Your task to perform on an android device: change the clock display to digital Image 0: 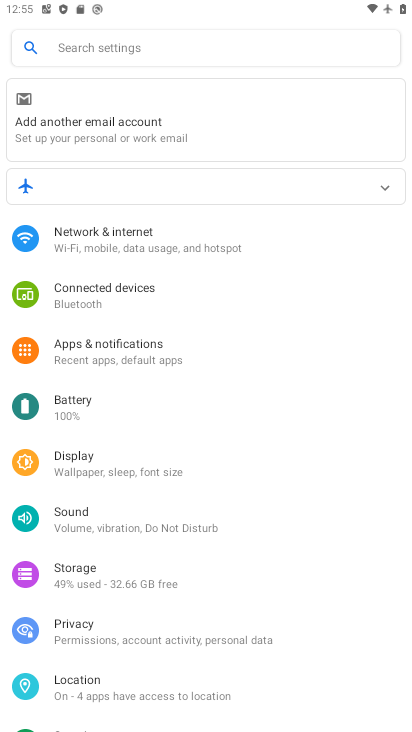
Step 0: press home button
Your task to perform on an android device: change the clock display to digital Image 1: 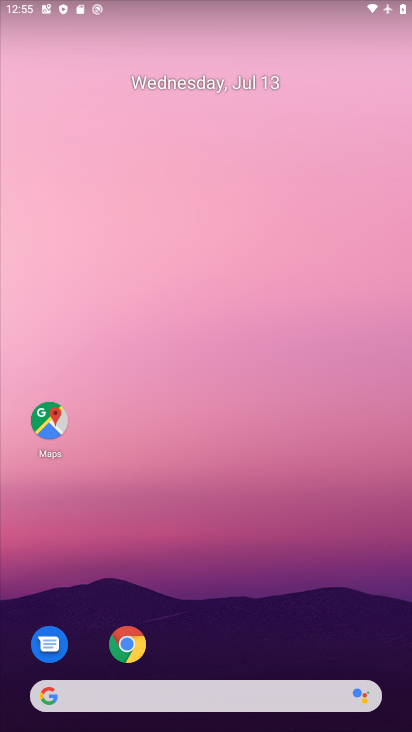
Step 1: drag from (263, 613) to (277, 98)
Your task to perform on an android device: change the clock display to digital Image 2: 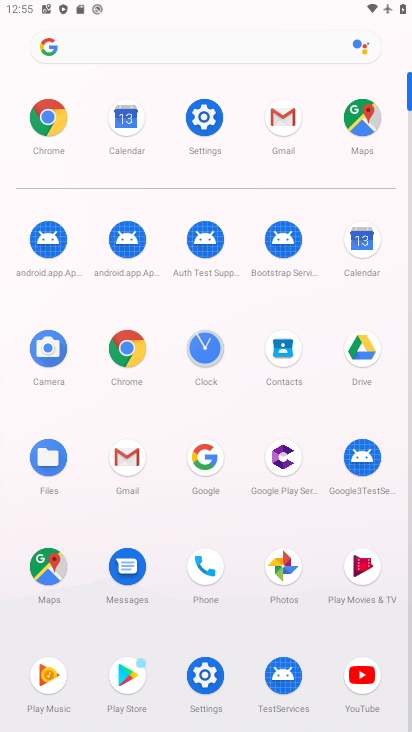
Step 2: click (205, 348)
Your task to perform on an android device: change the clock display to digital Image 3: 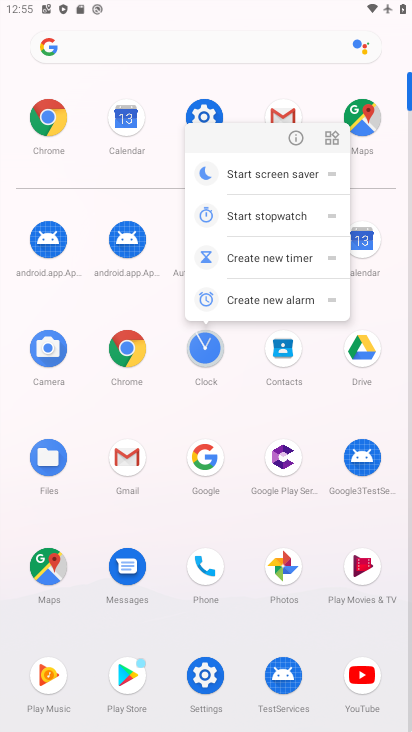
Step 3: click (204, 347)
Your task to perform on an android device: change the clock display to digital Image 4: 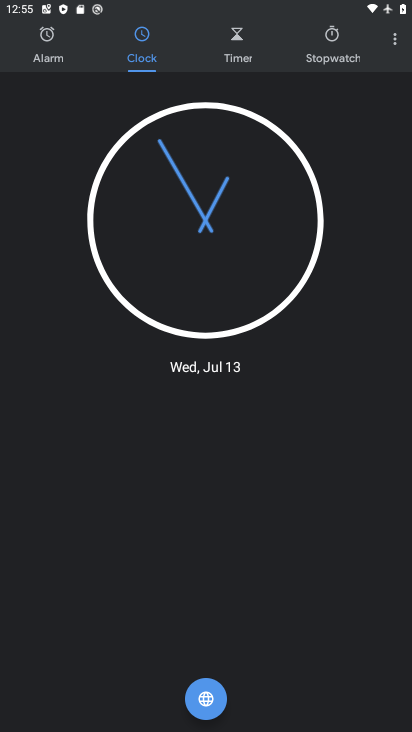
Step 4: click (403, 38)
Your task to perform on an android device: change the clock display to digital Image 5: 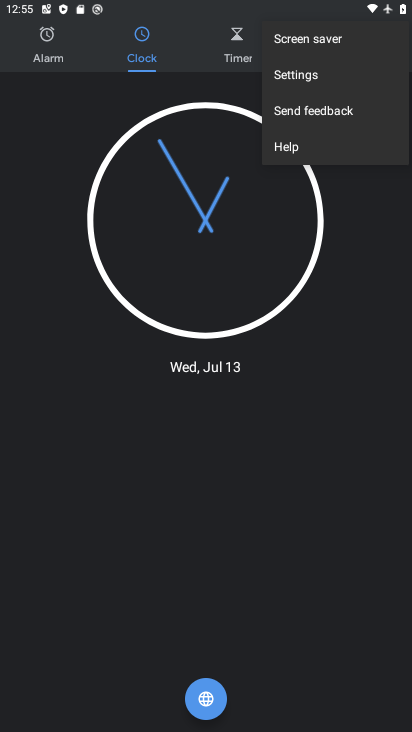
Step 5: click (304, 72)
Your task to perform on an android device: change the clock display to digital Image 6: 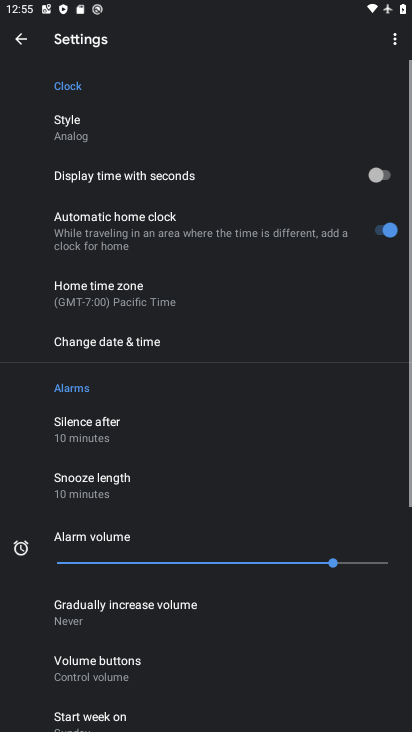
Step 6: click (87, 135)
Your task to perform on an android device: change the clock display to digital Image 7: 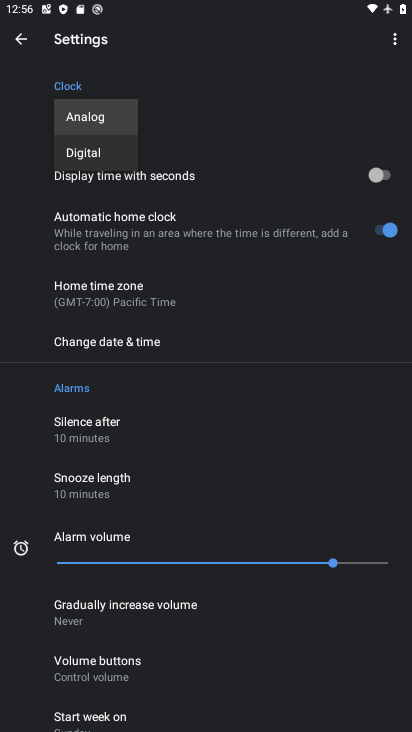
Step 7: click (97, 155)
Your task to perform on an android device: change the clock display to digital Image 8: 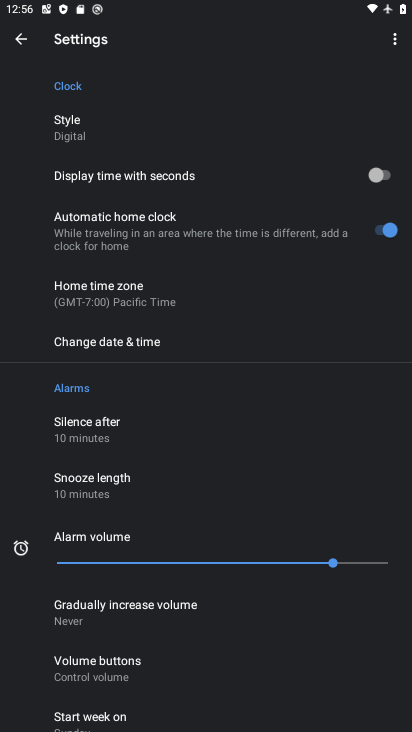
Step 8: task complete